Your task to perform on an android device: Open Chrome and go to settings Image 0: 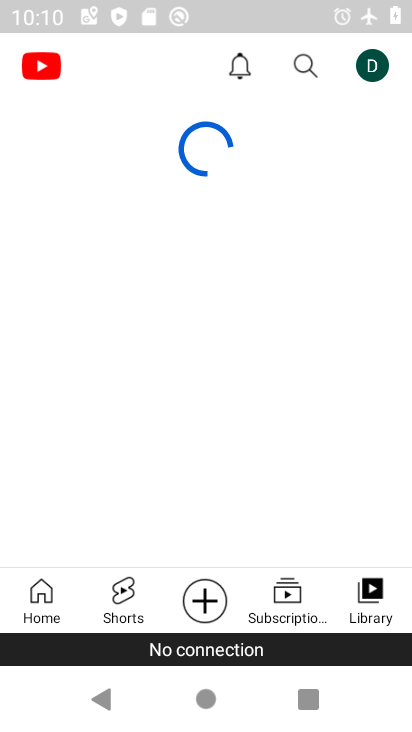
Step 0: press home button
Your task to perform on an android device: Open Chrome and go to settings Image 1: 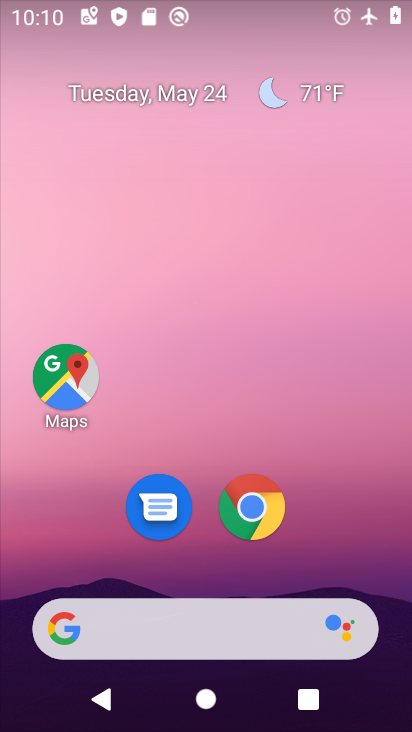
Step 1: click (260, 507)
Your task to perform on an android device: Open Chrome and go to settings Image 2: 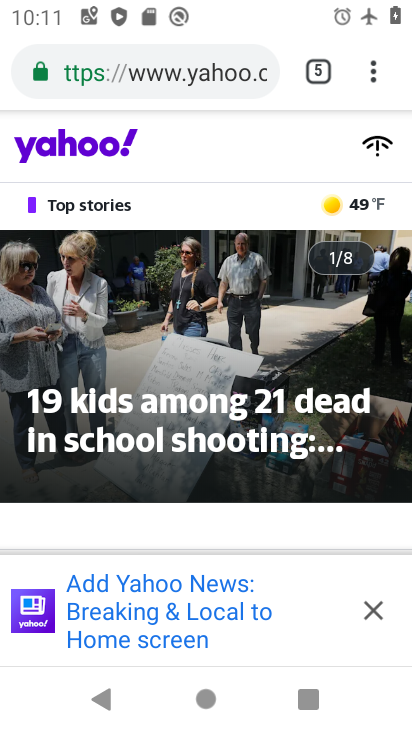
Step 2: click (375, 80)
Your task to perform on an android device: Open Chrome and go to settings Image 3: 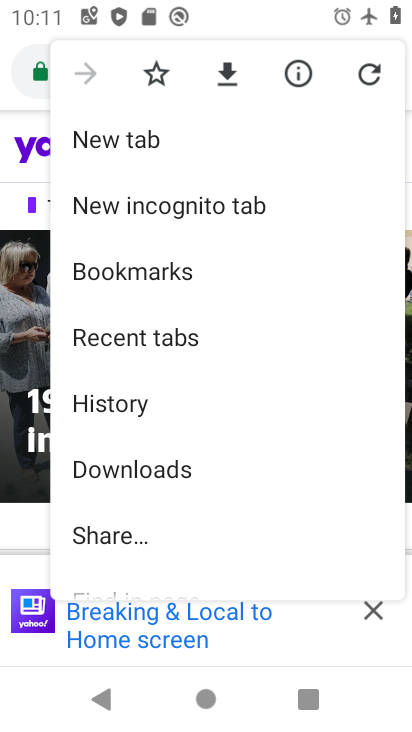
Step 3: drag from (152, 536) to (182, 169)
Your task to perform on an android device: Open Chrome and go to settings Image 4: 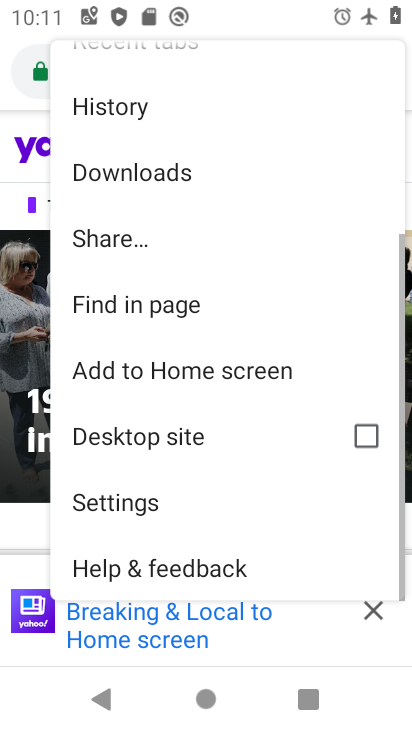
Step 4: click (137, 493)
Your task to perform on an android device: Open Chrome and go to settings Image 5: 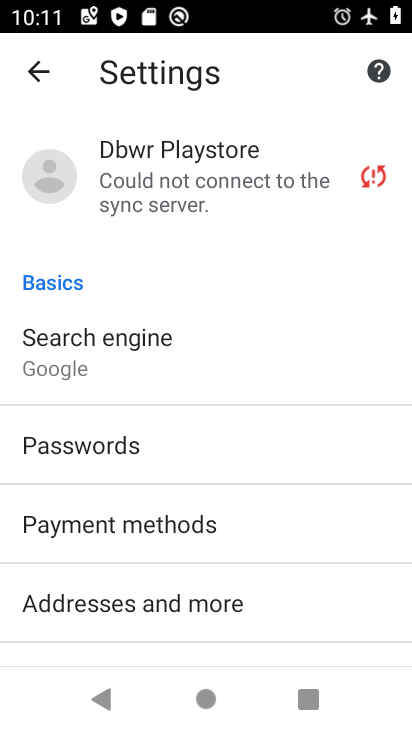
Step 5: task complete